Your task to perform on an android device: Show me the alarms in the clock app Image 0: 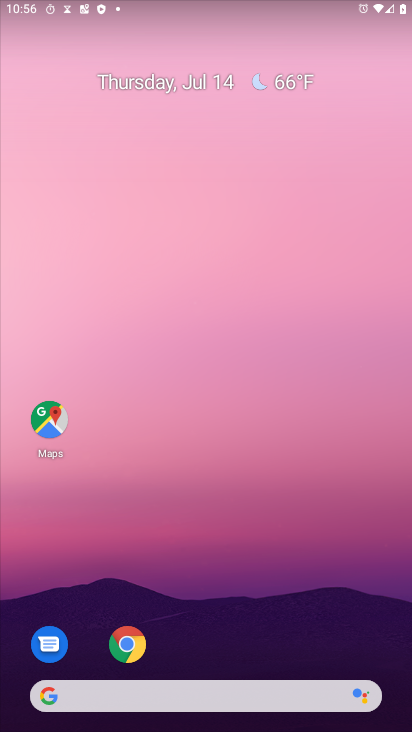
Step 0: drag from (159, 635) to (16, 37)
Your task to perform on an android device: Show me the alarms in the clock app Image 1: 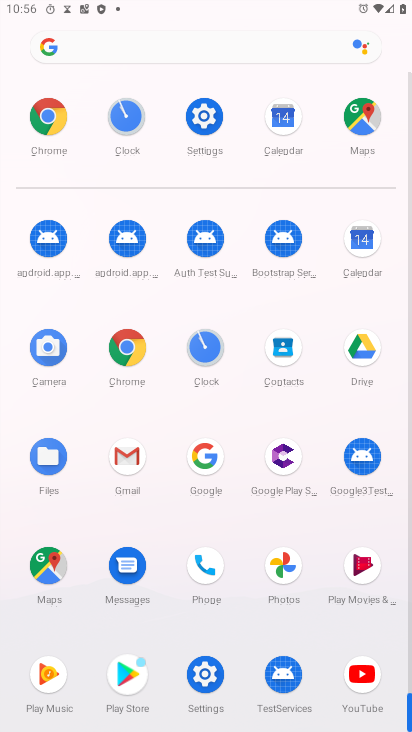
Step 1: drag from (146, 381) to (114, 201)
Your task to perform on an android device: Show me the alarms in the clock app Image 2: 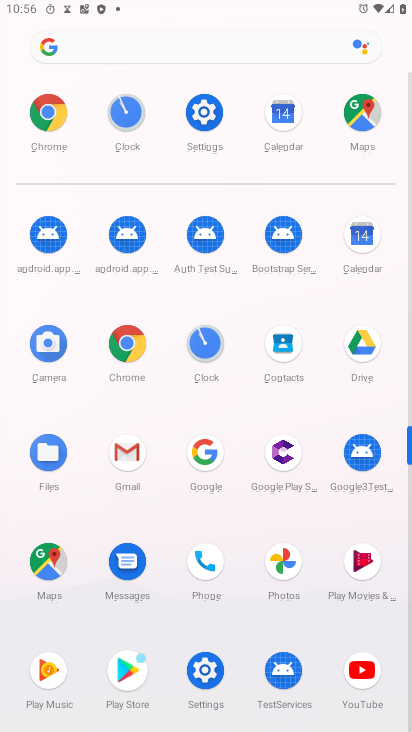
Step 2: click (215, 337)
Your task to perform on an android device: Show me the alarms in the clock app Image 3: 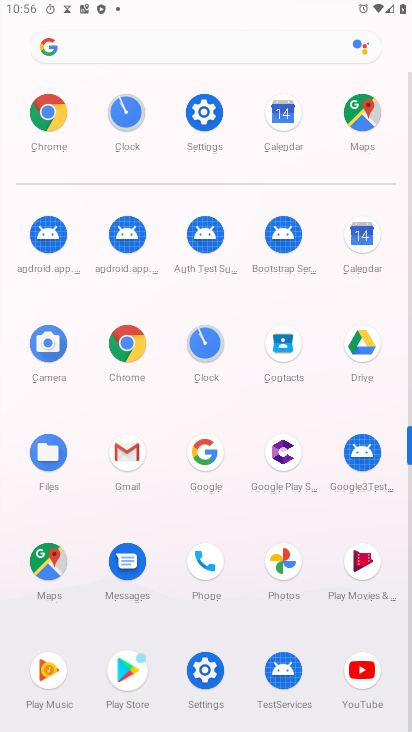
Step 3: click (214, 338)
Your task to perform on an android device: Show me the alarms in the clock app Image 4: 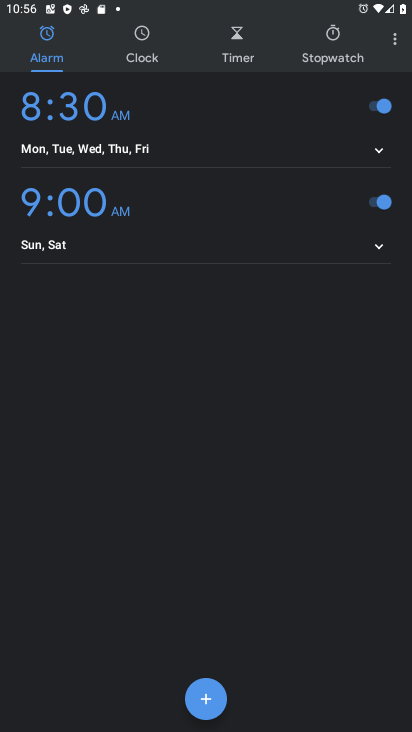
Step 4: click (383, 109)
Your task to perform on an android device: Show me the alarms in the clock app Image 5: 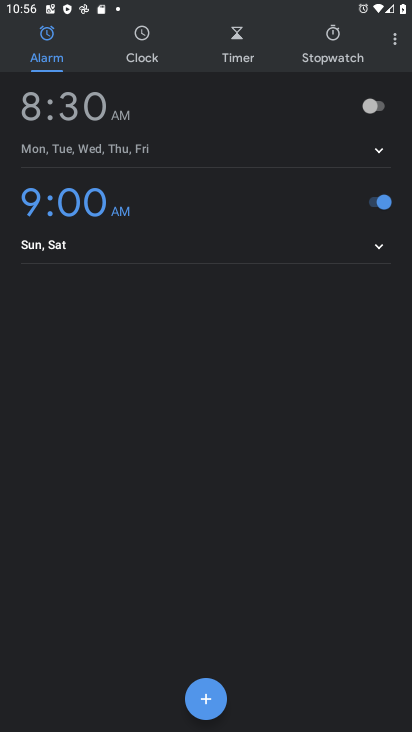
Step 5: click (368, 108)
Your task to perform on an android device: Show me the alarms in the clock app Image 6: 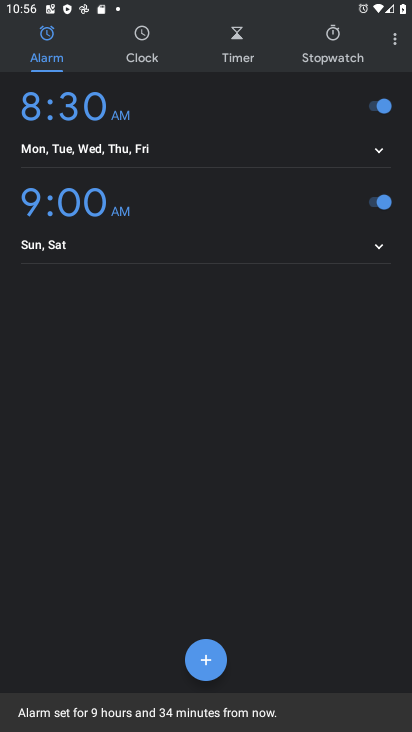
Step 6: task complete